Your task to perform on an android device: turn off javascript in the chrome app Image 0: 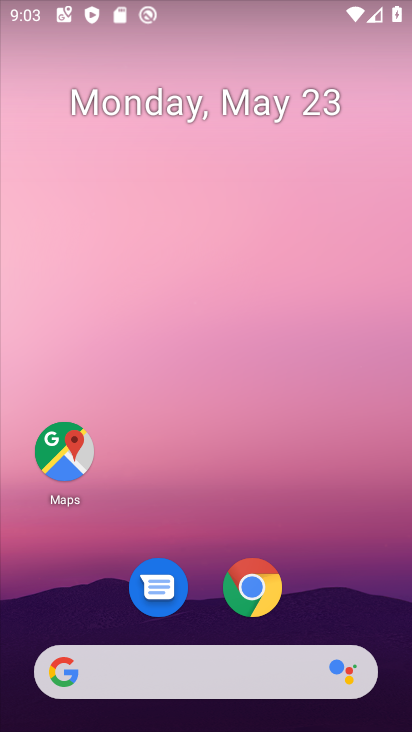
Step 0: click (273, 590)
Your task to perform on an android device: turn off javascript in the chrome app Image 1: 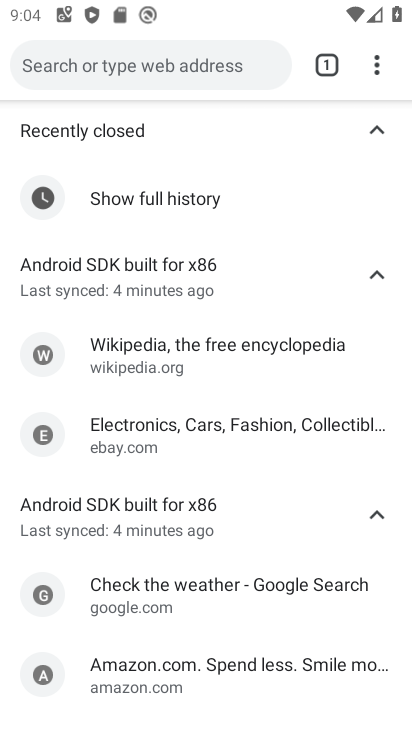
Step 1: click (379, 59)
Your task to perform on an android device: turn off javascript in the chrome app Image 2: 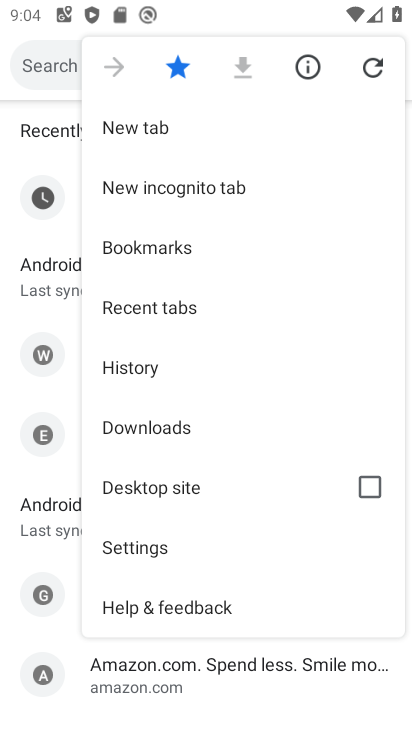
Step 2: click (171, 552)
Your task to perform on an android device: turn off javascript in the chrome app Image 3: 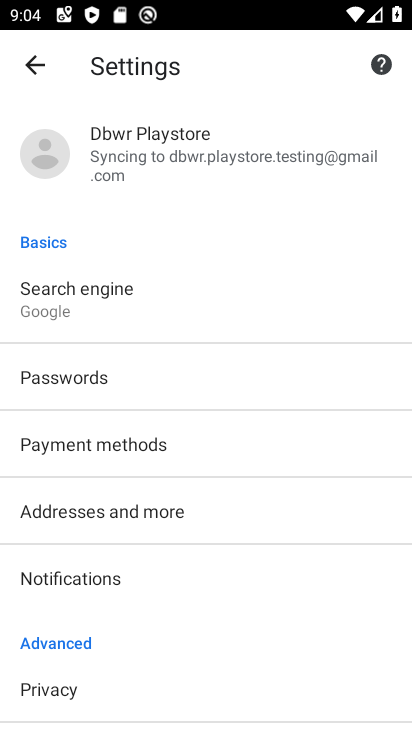
Step 3: drag from (152, 696) to (64, 112)
Your task to perform on an android device: turn off javascript in the chrome app Image 4: 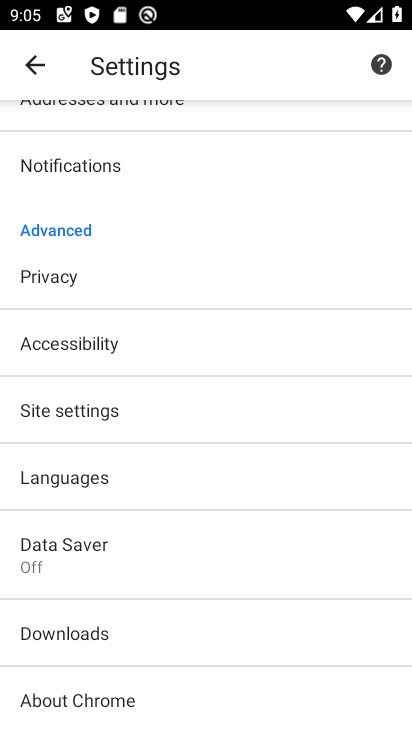
Step 4: click (115, 417)
Your task to perform on an android device: turn off javascript in the chrome app Image 5: 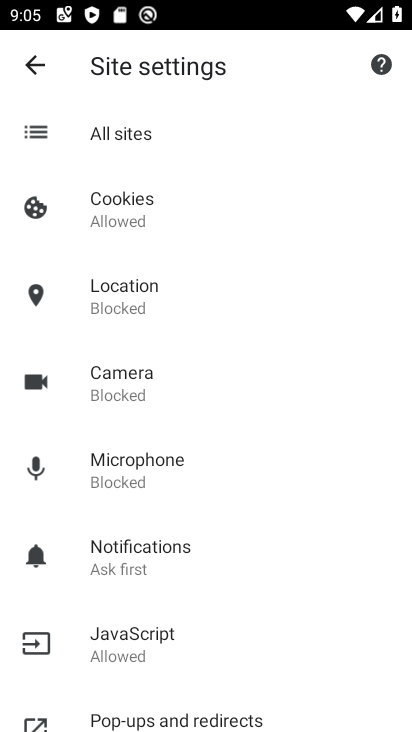
Step 5: click (180, 652)
Your task to perform on an android device: turn off javascript in the chrome app Image 6: 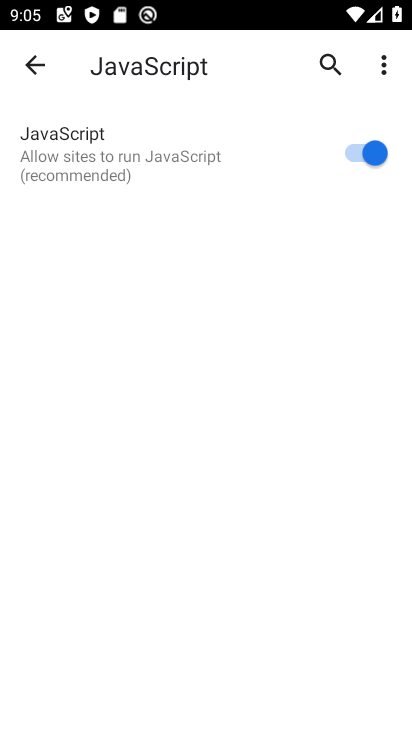
Step 6: click (353, 153)
Your task to perform on an android device: turn off javascript in the chrome app Image 7: 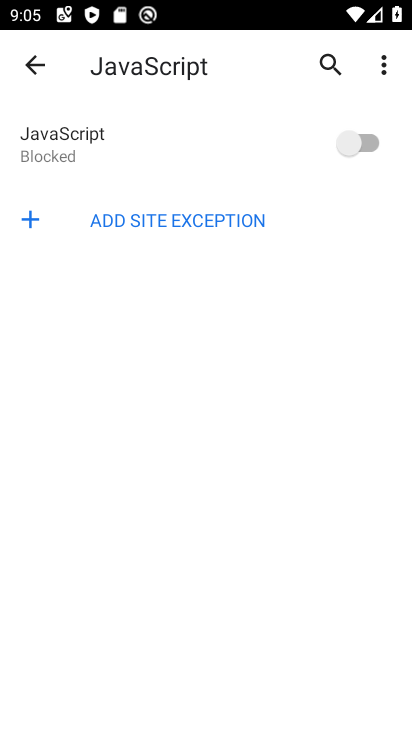
Step 7: task complete